Your task to perform on an android device: Show the shopping cart on ebay. Add razer blade to the cart on ebay, then select checkout. Image 0: 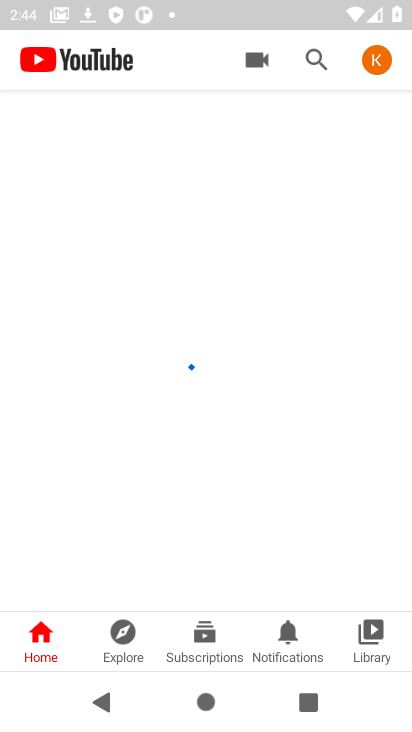
Step 0: press home button
Your task to perform on an android device: Show the shopping cart on ebay. Add razer blade to the cart on ebay, then select checkout. Image 1: 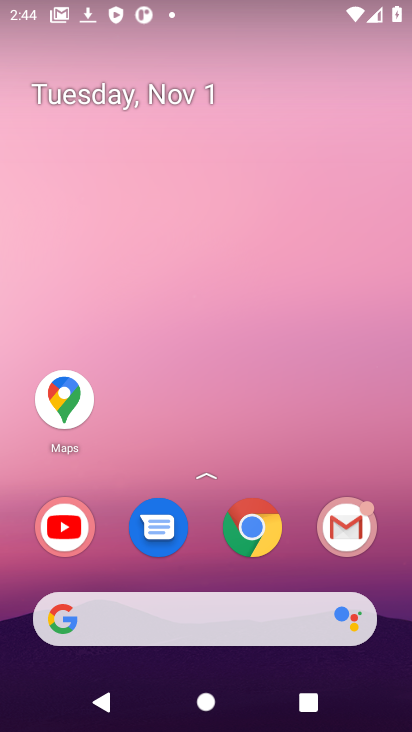
Step 1: click (254, 623)
Your task to perform on an android device: Show the shopping cart on ebay. Add razer blade to the cart on ebay, then select checkout. Image 2: 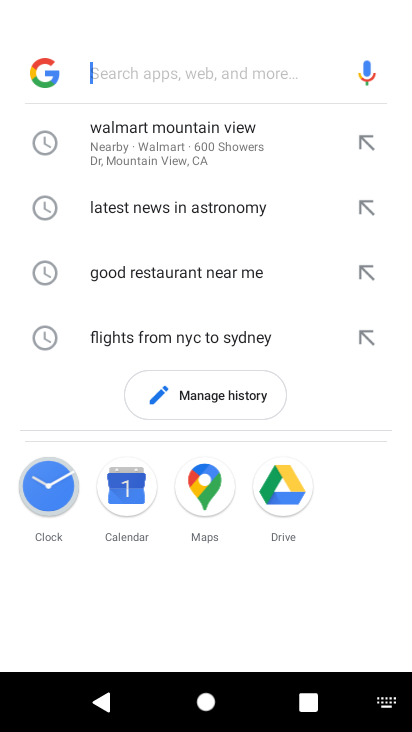
Step 2: click (179, 640)
Your task to perform on an android device: Show the shopping cart on ebay. Add razer blade to the cart on ebay, then select checkout. Image 3: 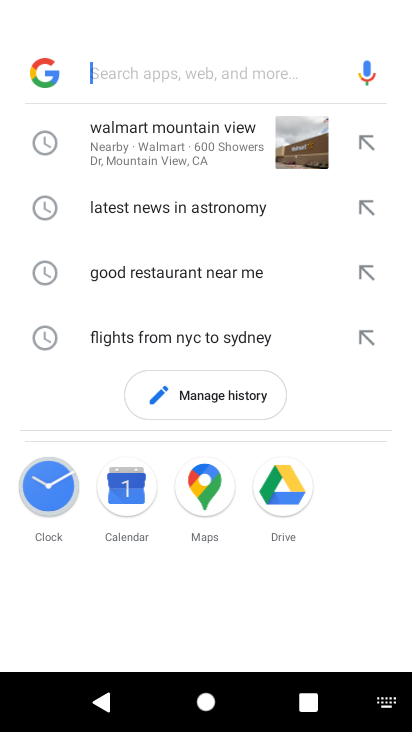
Step 3: press home button
Your task to perform on an android device: Show the shopping cart on ebay. Add razer blade to the cart on ebay, then select checkout. Image 4: 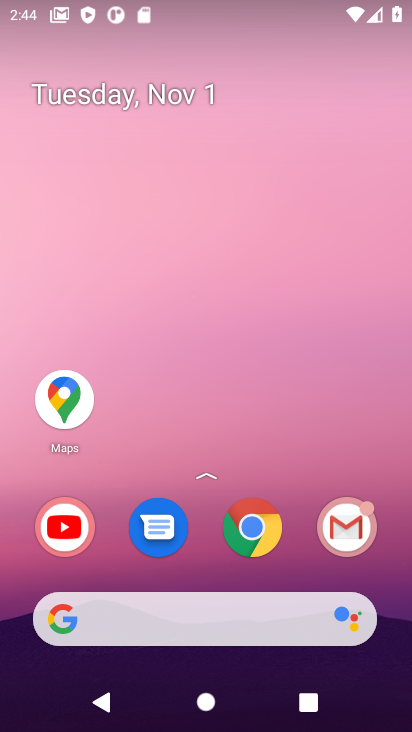
Step 4: drag from (200, 499) to (250, 111)
Your task to perform on an android device: Show the shopping cart on ebay. Add razer blade to the cart on ebay, then select checkout. Image 5: 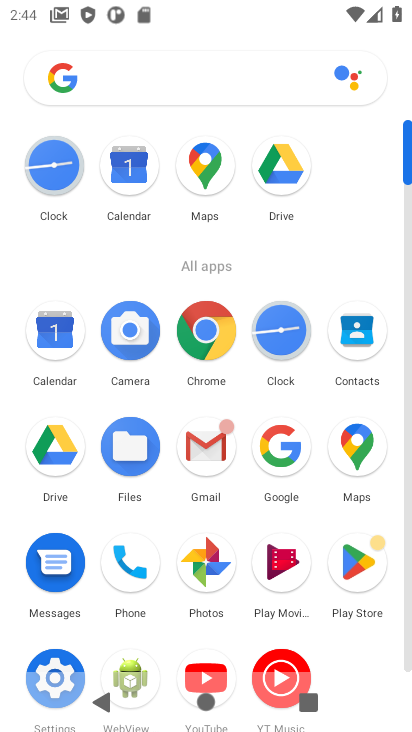
Step 5: click (278, 449)
Your task to perform on an android device: Show the shopping cart on ebay. Add razer blade to the cart on ebay, then select checkout. Image 6: 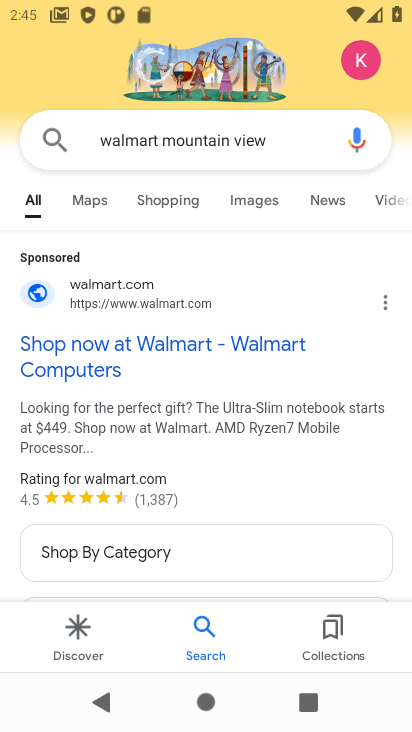
Step 6: click (269, 147)
Your task to perform on an android device: Show the shopping cart on ebay. Add razer blade to the cart on ebay, then select checkout. Image 7: 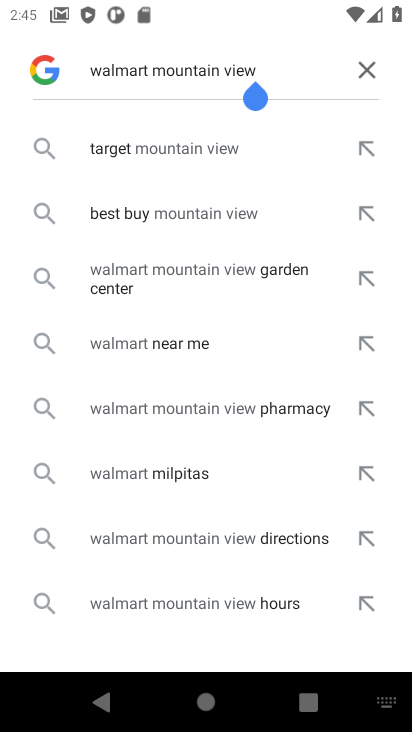
Step 7: click (360, 69)
Your task to perform on an android device: Show the shopping cart on ebay. Add razer blade to the cart on ebay, then select checkout. Image 8: 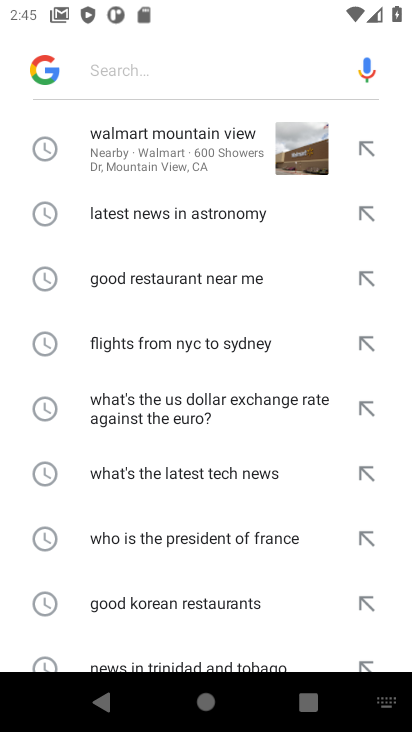
Step 8: type "ebay"
Your task to perform on an android device: Show the shopping cart on ebay. Add razer blade to the cart on ebay, then select checkout. Image 9: 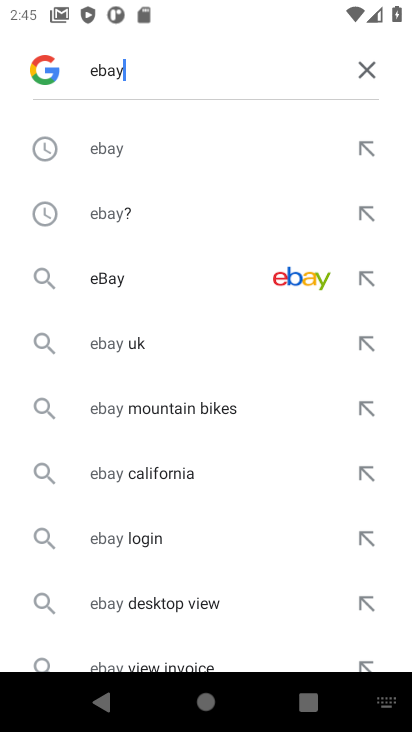
Step 9: click (239, 280)
Your task to perform on an android device: Show the shopping cart on ebay. Add razer blade to the cart on ebay, then select checkout. Image 10: 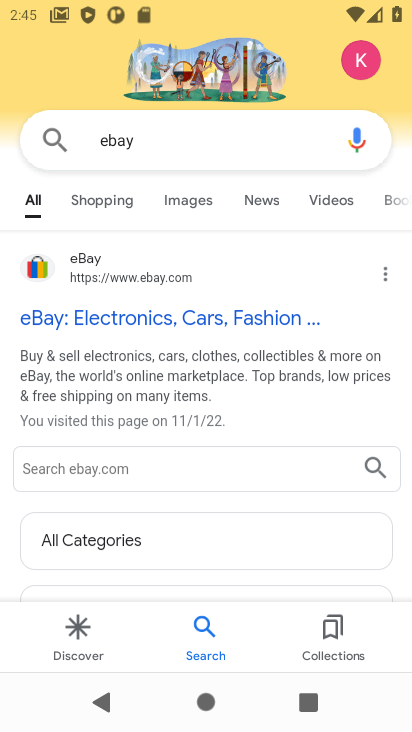
Step 10: click (168, 312)
Your task to perform on an android device: Show the shopping cart on ebay. Add razer blade to the cart on ebay, then select checkout. Image 11: 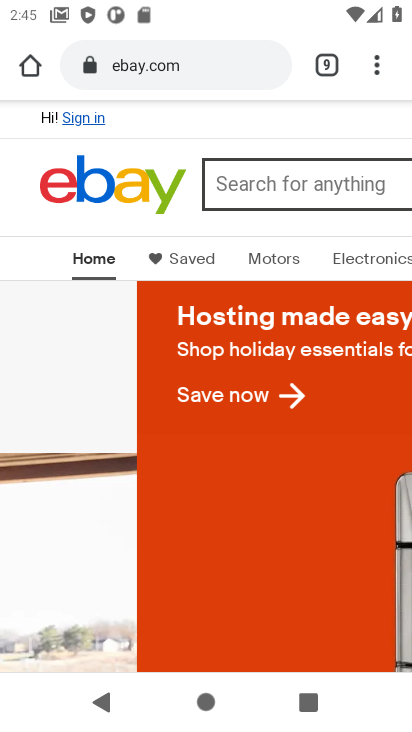
Step 11: click (345, 170)
Your task to perform on an android device: Show the shopping cart on ebay. Add razer blade to the cart on ebay, then select checkout. Image 12: 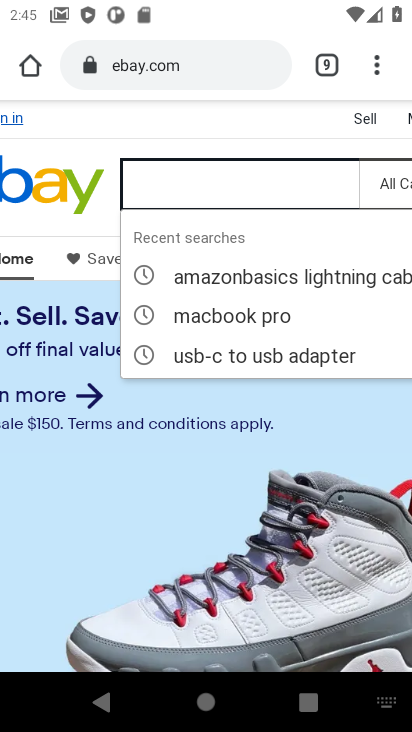
Step 12: type "razer blade"
Your task to perform on an android device: Show the shopping cart on ebay. Add razer blade to the cart on ebay, then select checkout. Image 13: 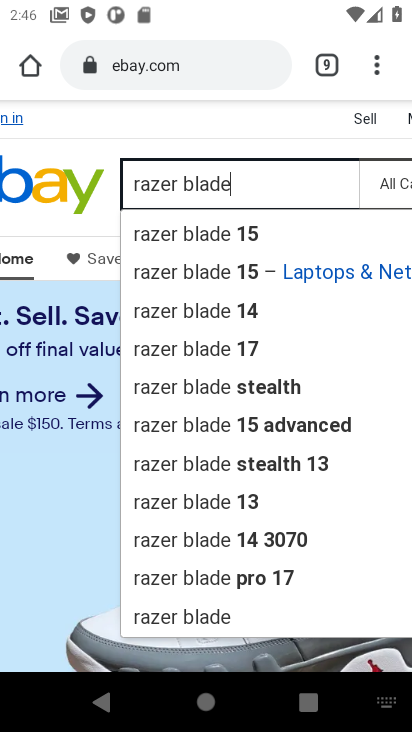
Step 13: click (214, 614)
Your task to perform on an android device: Show the shopping cart on ebay. Add razer blade to the cart on ebay, then select checkout. Image 14: 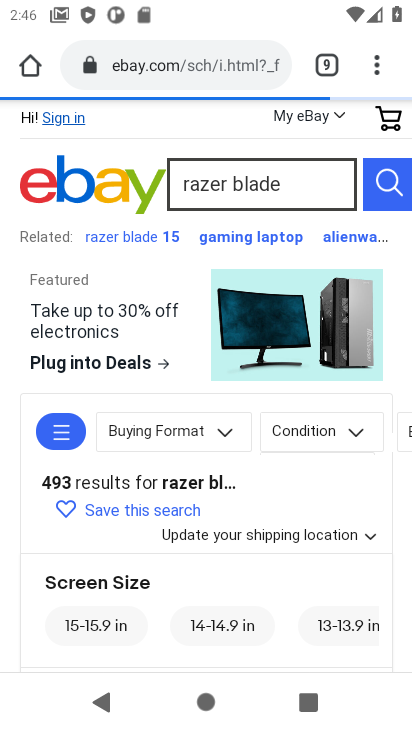
Step 14: click (217, 219)
Your task to perform on an android device: Show the shopping cart on ebay. Add razer blade to the cart on ebay, then select checkout. Image 15: 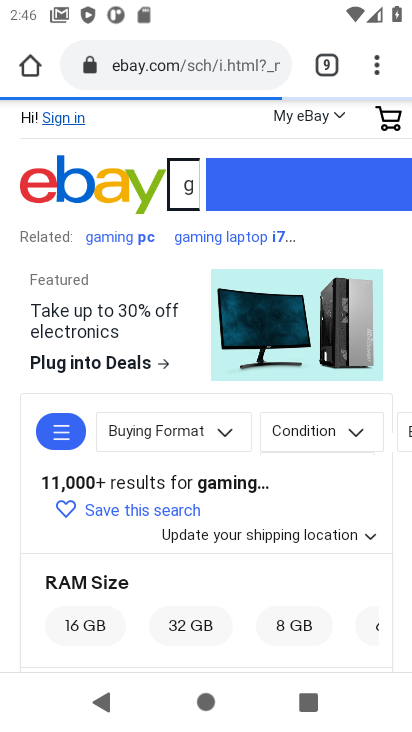
Step 15: drag from (183, 482) to (222, 300)
Your task to perform on an android device: Show the shopping cart on ebay. Add razer blade to the cart on ebay, then select checkout. Image 16: 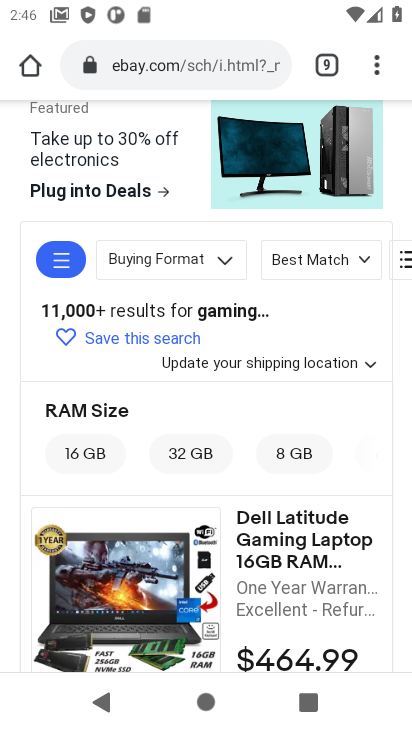
Step 16: click (272, 541)
Your task to perform on an android device: Show the shopping cart on ebay. Add razer blade to the cart on ebay, then select checkout. Image 17: 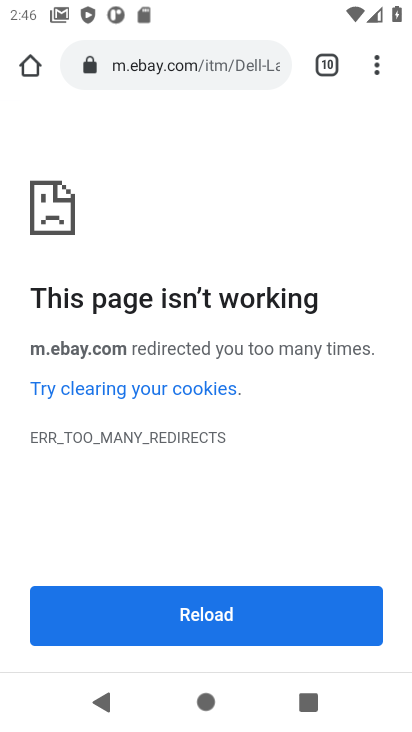
Step 17: click (217, 611)
Your task to perform on an android device: Show the shopping cart on ebay. Add razer blade to the cart on ebay, then select checkout. Image 18: 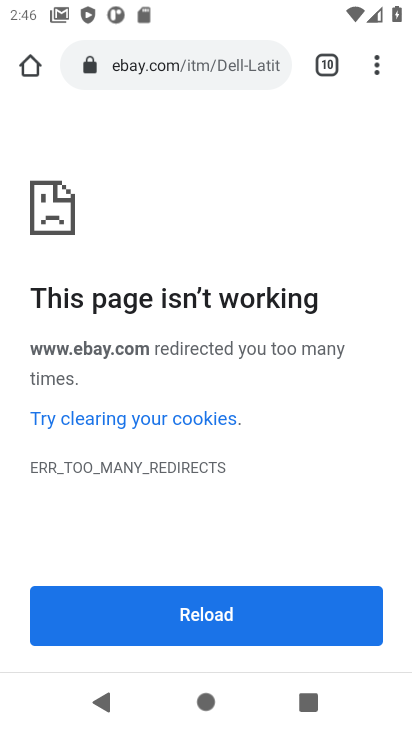
Step 18: task complete